Your task to perform on an android device: Search for a new eyeshadow on Sephora Image 0: 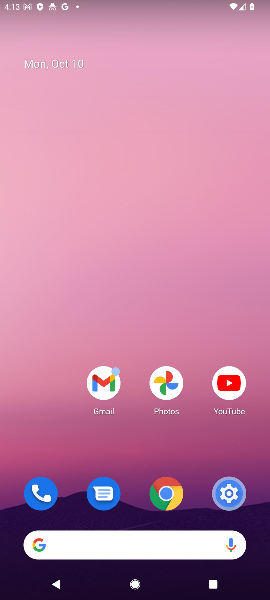
Step 0: click (133, 532)
Your task to perform on an android device: Search for a new eyeshadow on Sephora Image 1: 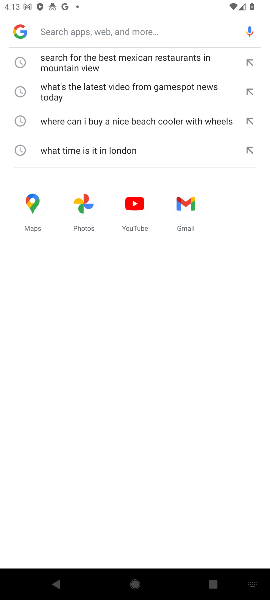
Step 1: type "new eyeshadow on Sephora"
Your task to perform on an android device: Search for a new eyeshadow on Sephora Image 2: 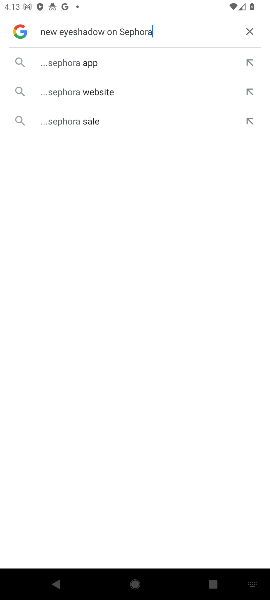
Step 2: click (150, 59)
Your task to perform on an android device: Search for a new eyeshadow on Sephora Image 3: 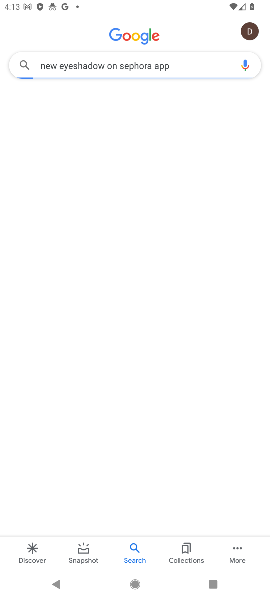
Step 3: task complete